Your task to perform on an android device: change the clock style Image 0: 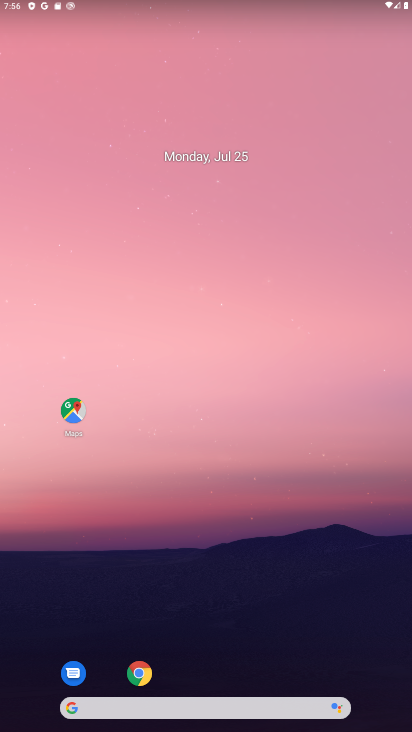
Step 0: drag from (307, 680) to (296, 247)
Your task to perform on an android device: change the clock style Image 1: 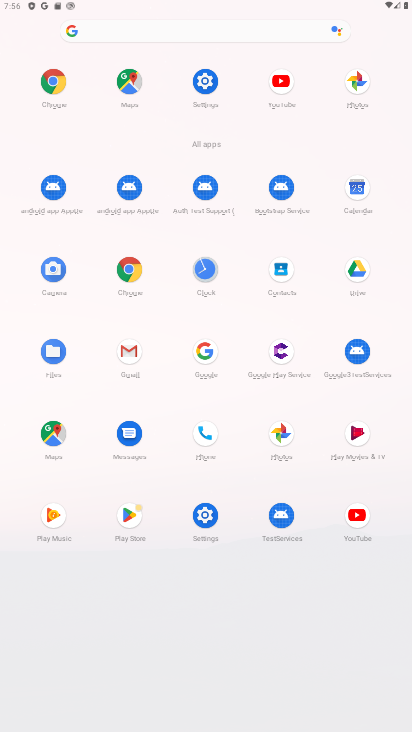
Step 1: click (208, 79)
Your task to perform on an android device: change the clock style Image 2: 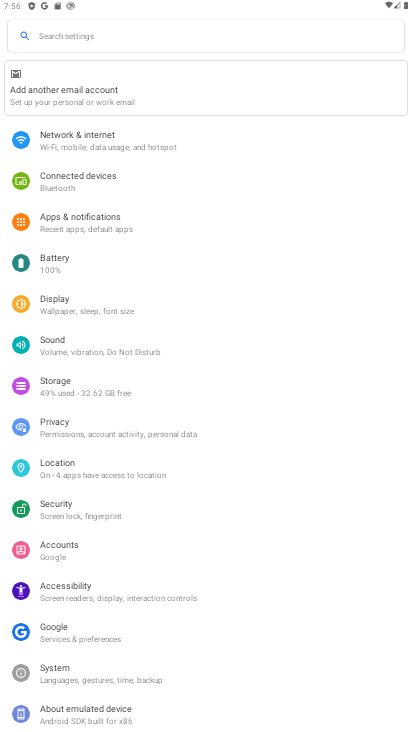
Step 2: task complete